Your task to perform on an android device: change the clock display to show seconds Image 0: 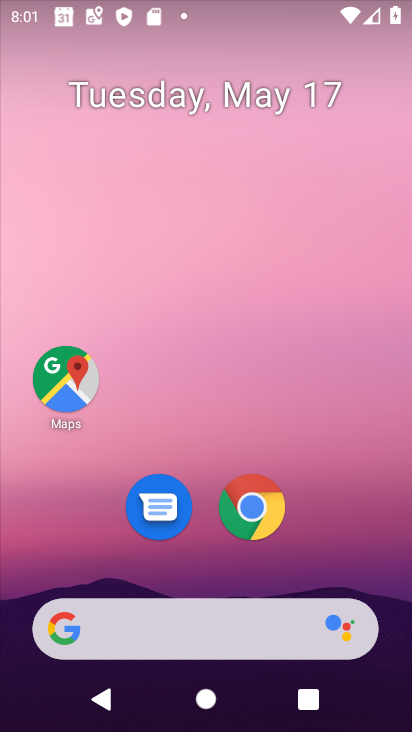
Step 0: drag from (360, 593) to (342, 12)
Your task to perform on an android device: change the clock display to show seconds Image 1: 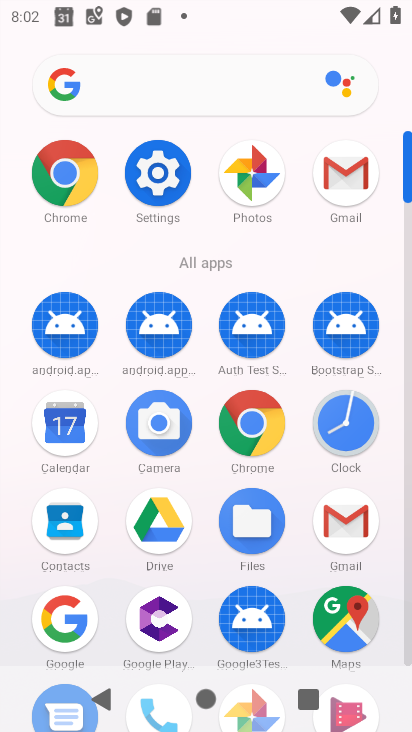
Step 1: click (349, 443)
Your task to perform on an android device: change the clock display to show seconds Image 2: 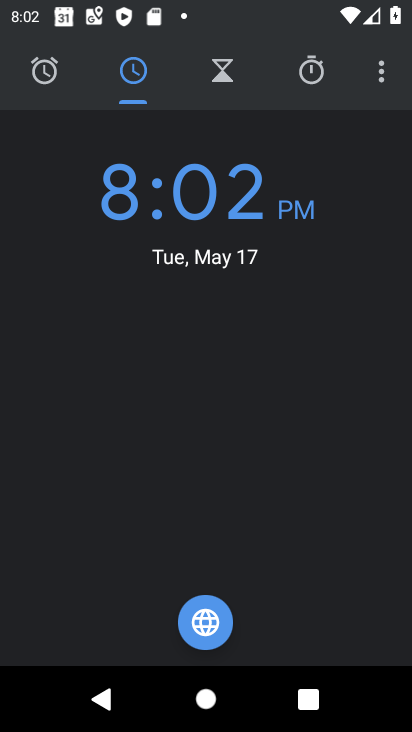
Step 2: click (382, 73)
Your task to perform on an android device: change the clock display to show seconds Image 3: 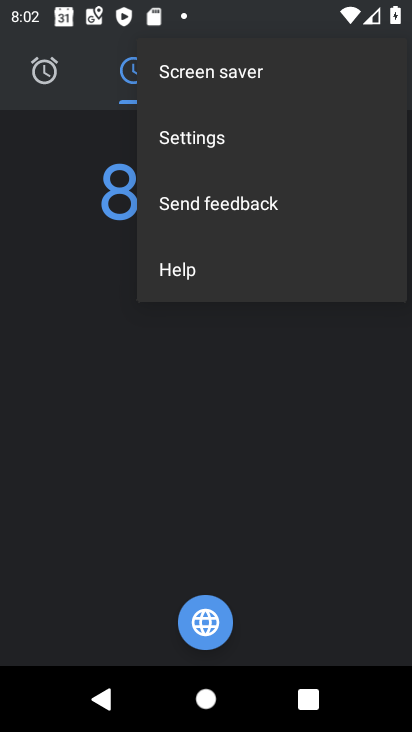
Step 3: click (197, 148)
Your task to perform on an android device: change the clock display to show seconds Image 4: 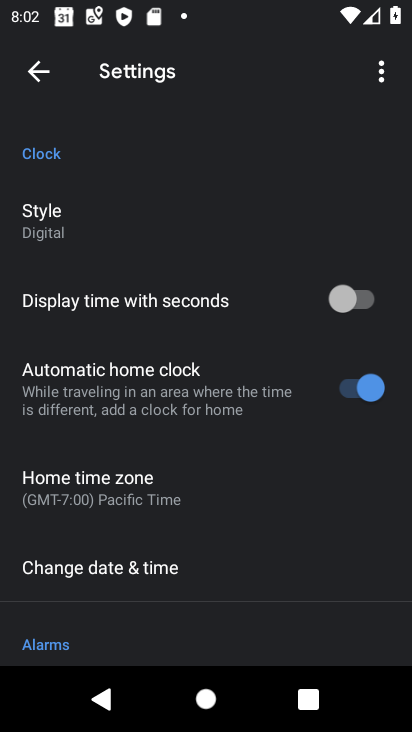
Step 4: click (344, 308)
Your task to perform on an android device: change the clock display to show seconds Image 5: 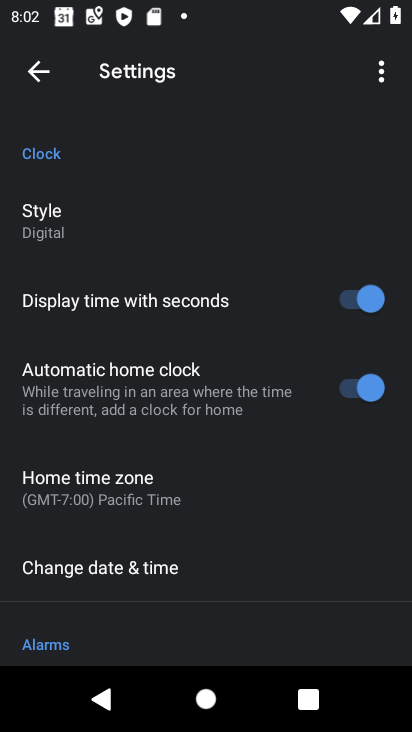
Step 5: task complete